Your task to perform on an android device: Search for the new ikea dresser Image 0: 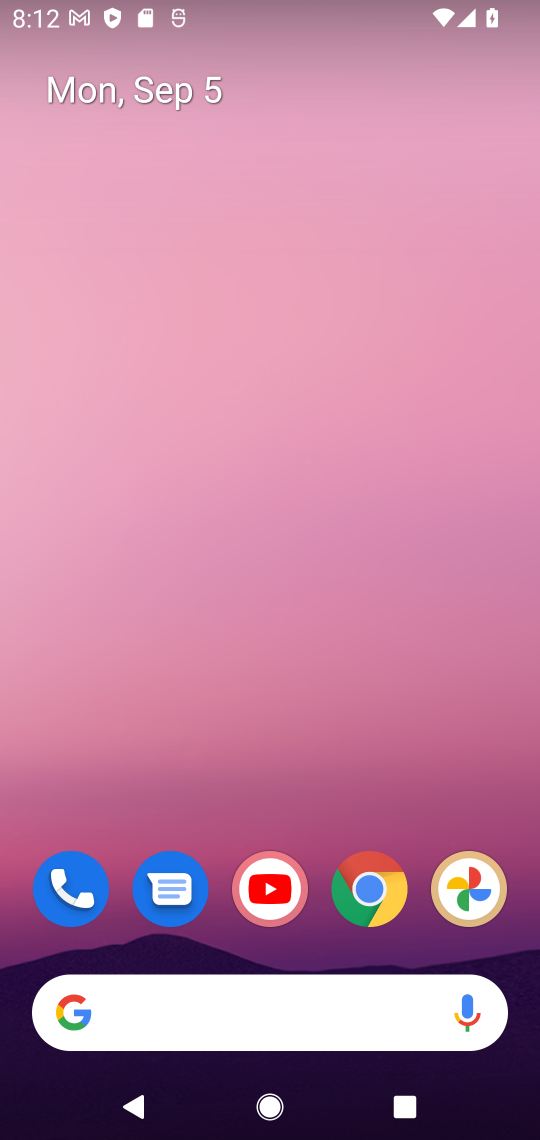
Step 0: click (211, 997)
Your task to perform on an android device: Search for the new ikea dresser Image 1: 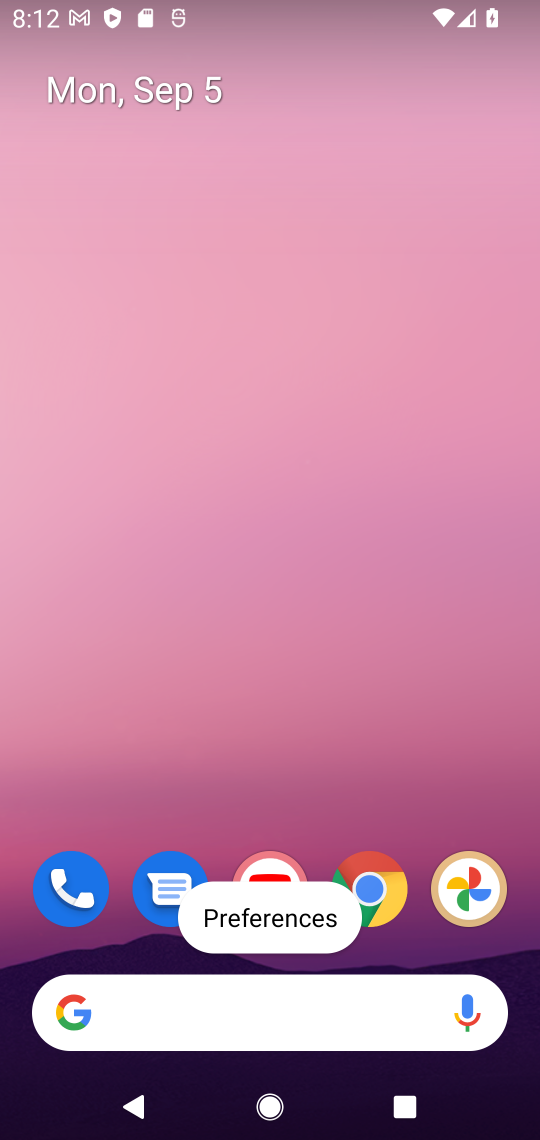
Step 1: click (290, 1013)
Your task to perform on an android device: Search for the new ikea dresser Image 2: 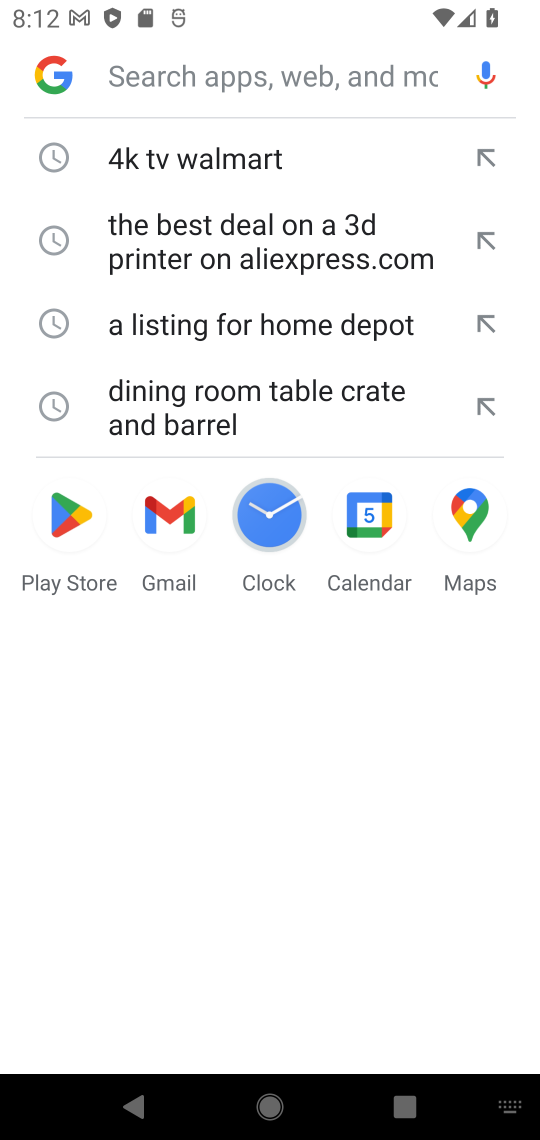
Step 2: type " the new ikea dresser"
Your task to perform on an android device: Search for the new ikea dresser Image 3: 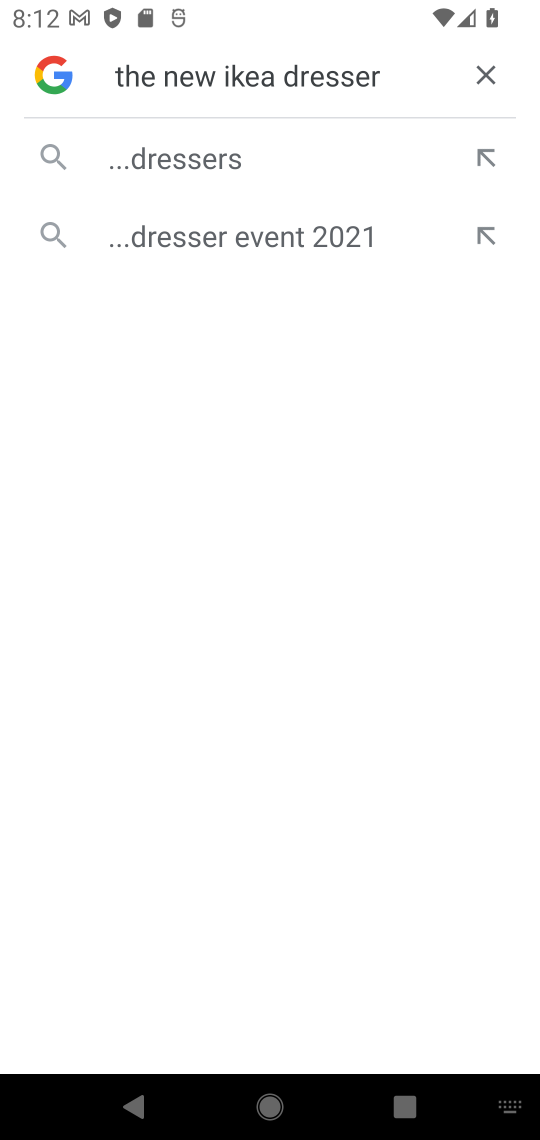
Step 3: click (237, 158)
Your task to perform on an android device: Search for the new ikea dresser Image 4: 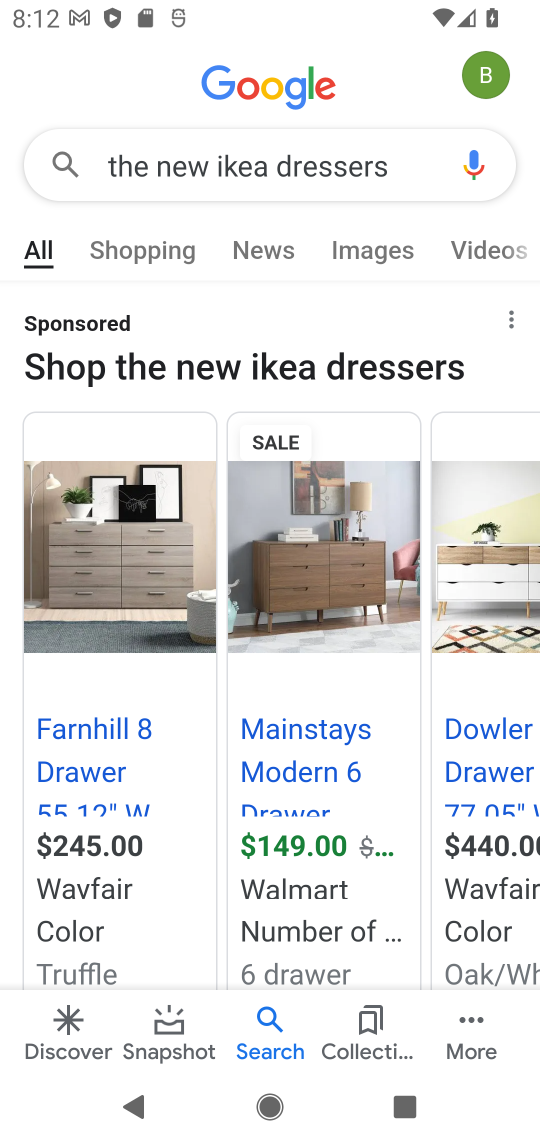
Step 4: click (157, 840)
Your task to perform on an android device: Search for the new ikea dresser Image 5: 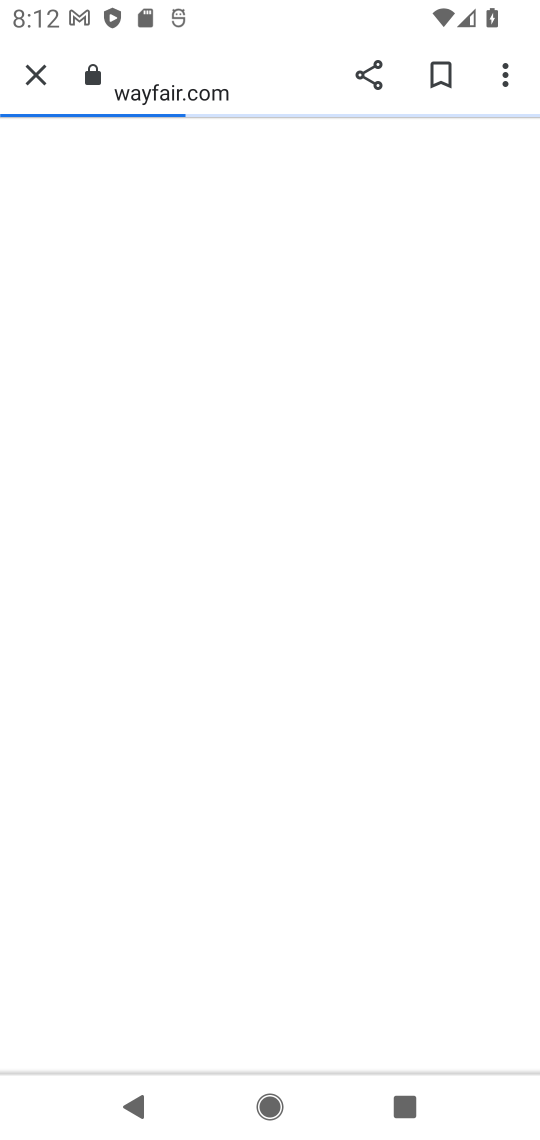
Step 5: task complete